Your task to perform on an android device: change text size in settings app Image 0: 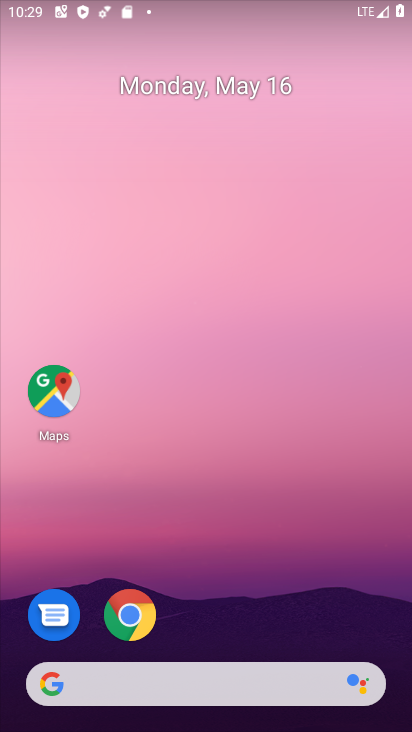
Step 0: drag from (258, 682) to (293, 124)
Your task to perform on an android device: change text size in settings app Image 1: 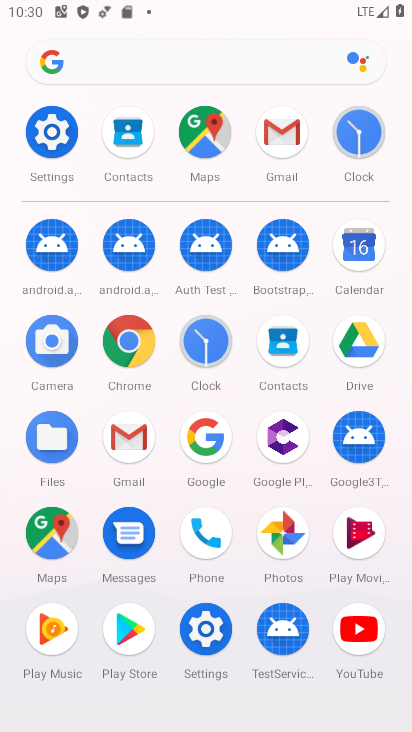
Step 1: click (67, 154)
Your task to perform on an android device: change text size in settings app Image 2: 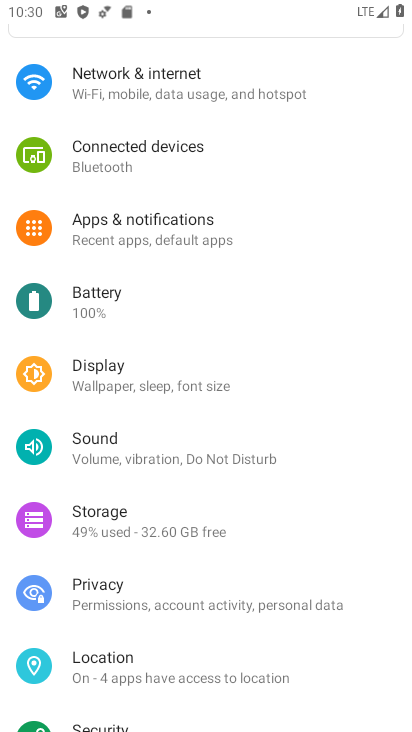
Step 2: click (173, 384)
Your task to perform on an android device: change text size in settings app Image 3: 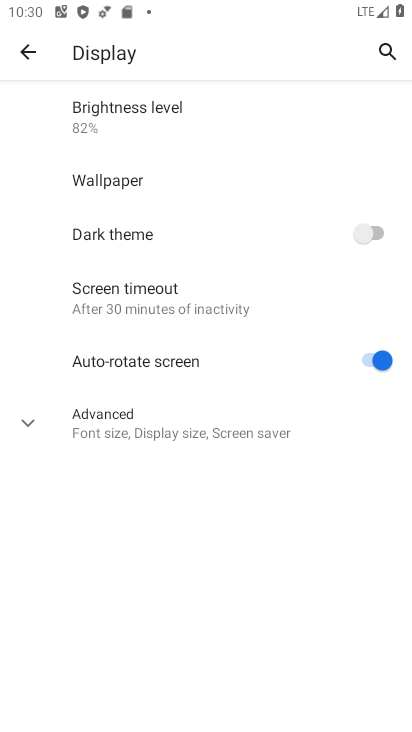
Step 3: click (169, 440)
Your task to perform on an android device: change text size in settings app Image 4: 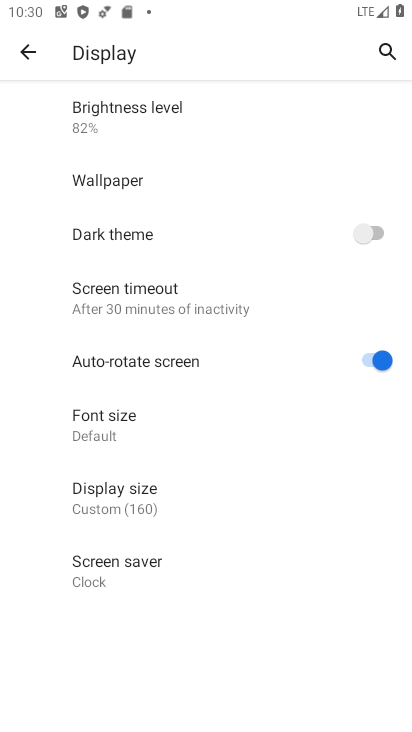
Step 4: click (152, 442)
Your task to perform on an android device: change text size in settings app Image 5: 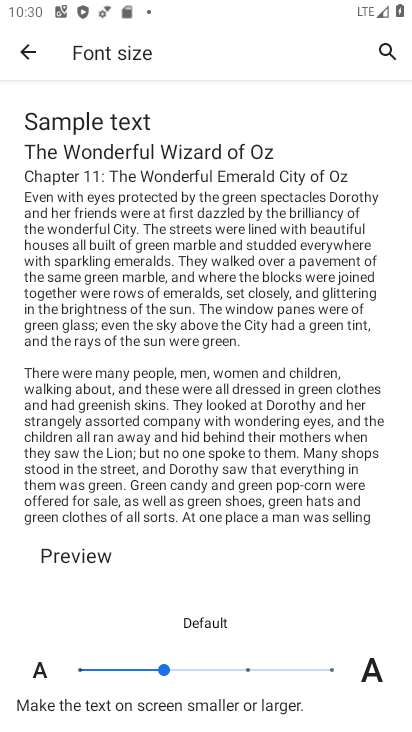
Step 5: click (249, 676)
Your task to perform on an android device: change text size in settings app Image 6: 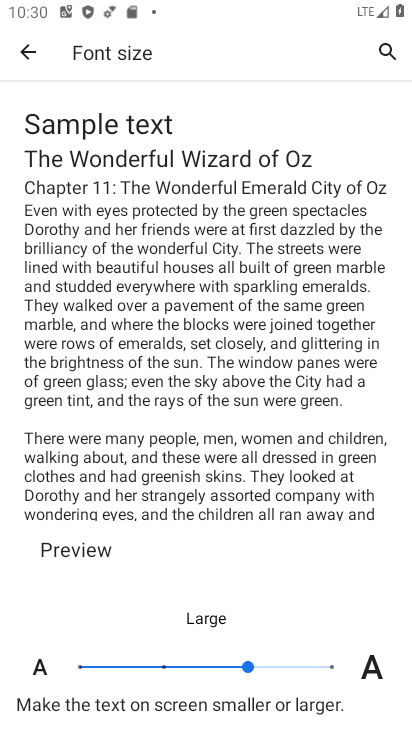
Step 6: task complete